Your task to perform on an android device: open wifi settings Image 0: 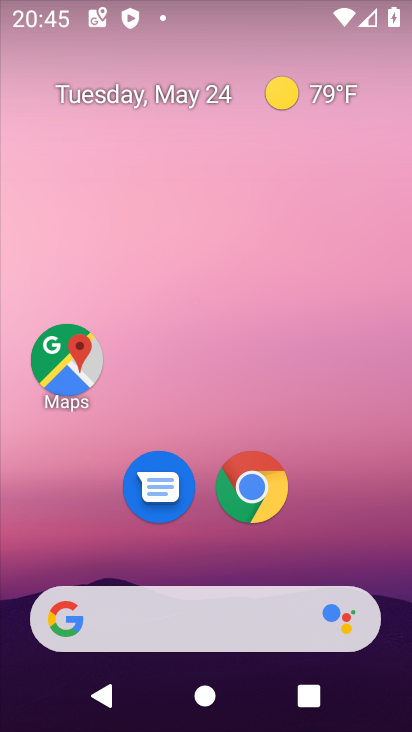
Step 0: drag from (191, 2) to (174, 724)
Your task to perform on an android device: open wifi settings Image 1: 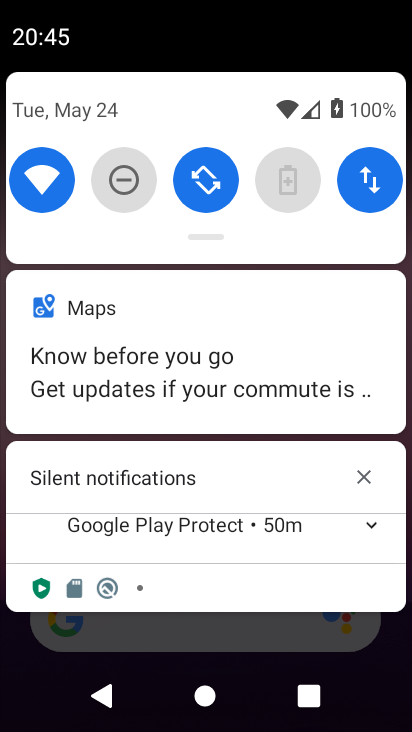
Step 1: click (40, 199)
Your task to perform on an android device: open wifi settings Image 2: 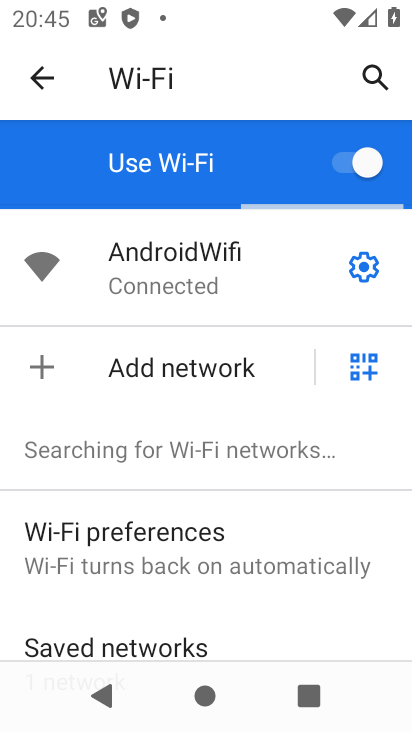
Step 2: task complete